Your task to perform on an android device: turn on translation in the chrome app Image 0: 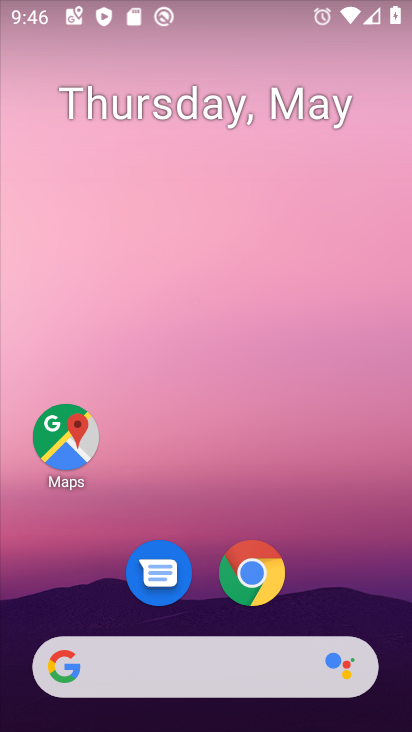
Step 0: click (248, 582)
Your task to perform on an android device: turn on translation in the chrome app Image 1: 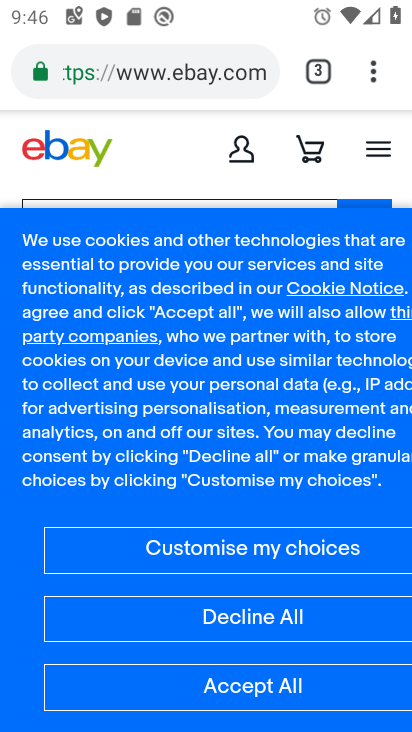
Step 1: click (367, 64)
Your task to perform on an android device: turn on translation in the chrome app Image 2: 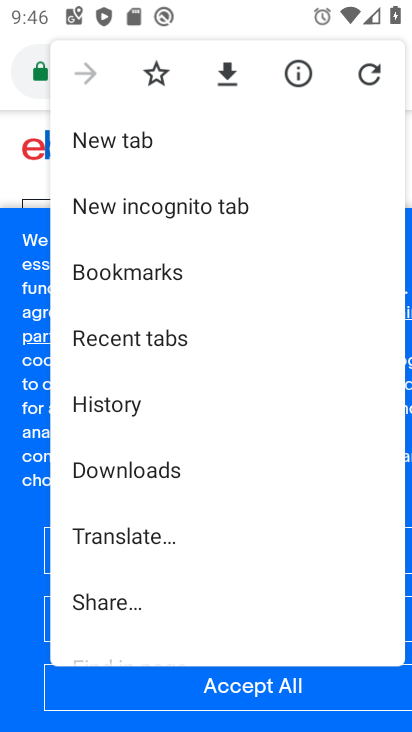
Step 2: drag from (209, 577) to (225, 286)
Your task to perform on an android device: turn on translation in the chrome app Image 3: 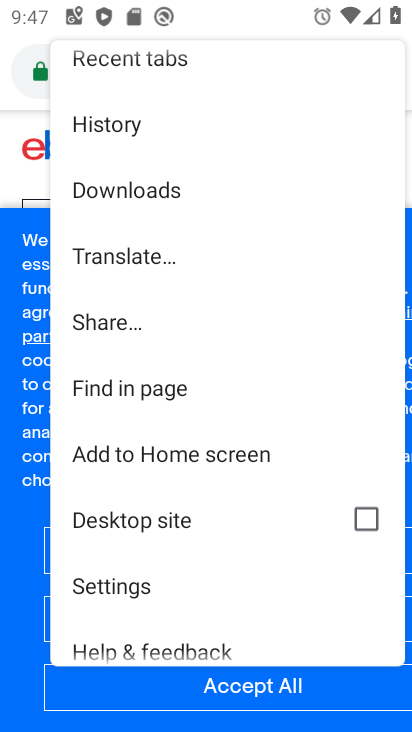
Step 3: drag from (195, 590) to (246, 401)
Your task to perform on an android device: turn on translation in the chrome app Image 4: 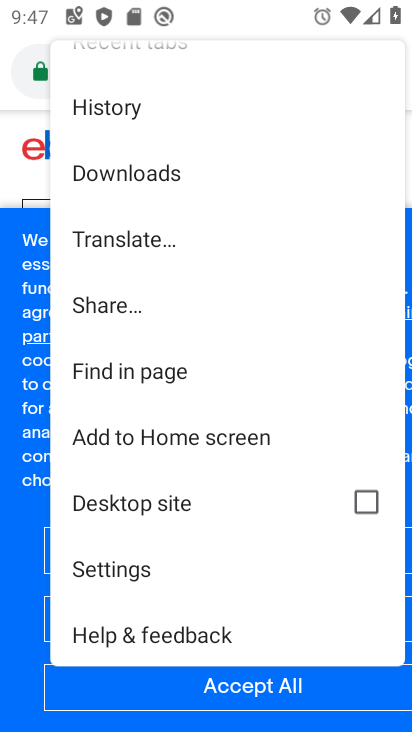
Step 4: click (136, 552)
Your task to perform on an android device: turn on translation in the chrome app Image 5: 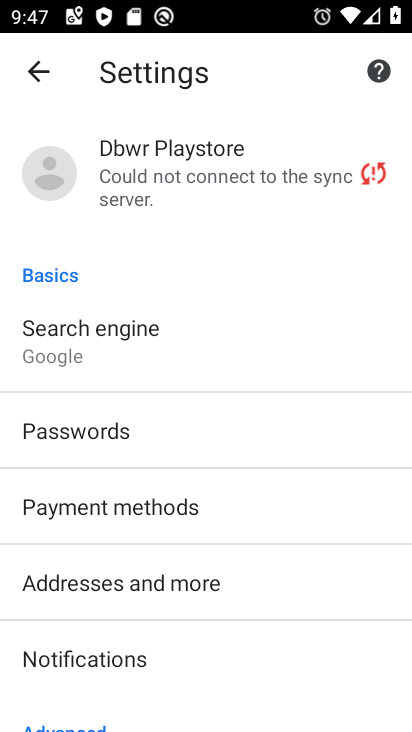
Step 5: drag from (176, 651) to (241, 511)
Your task to perform on an android device: turn on translation in the chrome app Image 6: 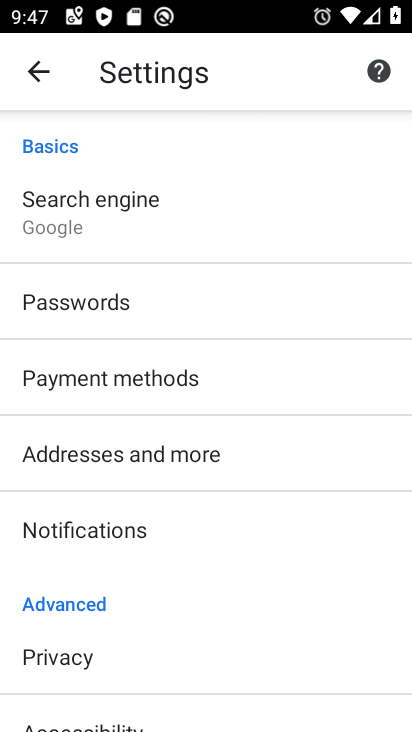
Step 6: drag from (165, 580) to (165, 457)
Your task to perform on an android device: turn on translation in the chrome app Image 7: 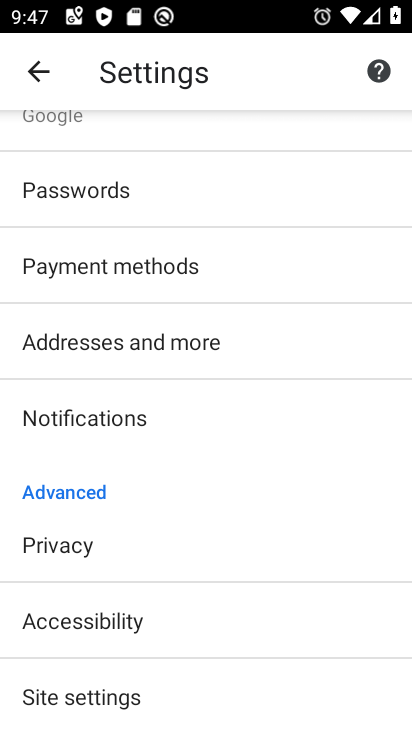
Step 7: drag from (170, 630) to (176, 511)
Your task to perform on an android device: turn on translation in the chrome app Image 8: 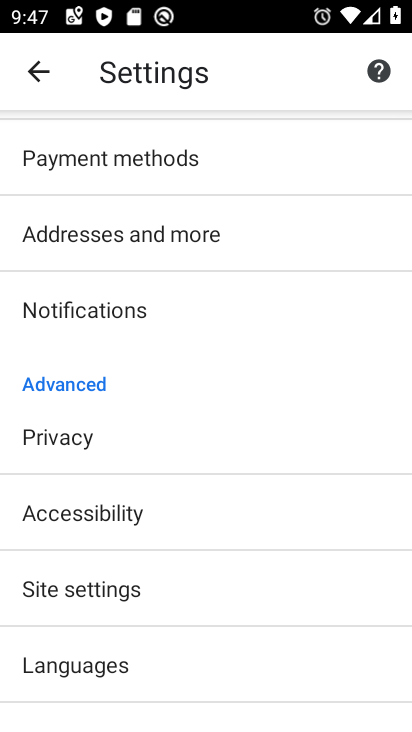
Step 8: click (126, 680)
Your task to perform on an android device: turn on translation in the chrome app Image 9: 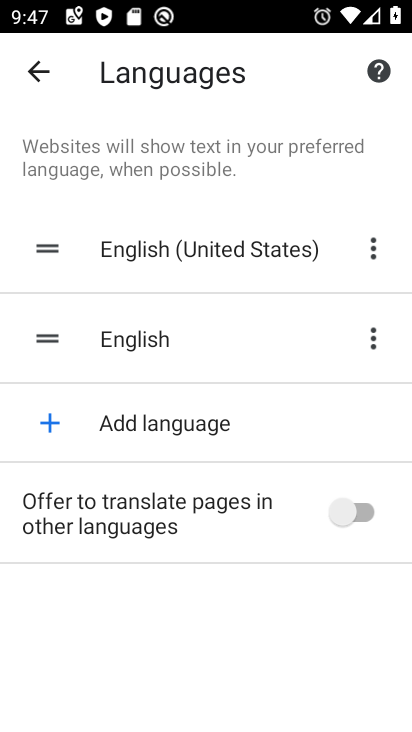
Step 9: click (364, 498)
Your task to perform on an android device: turn on translation in the chrome app Image 10: 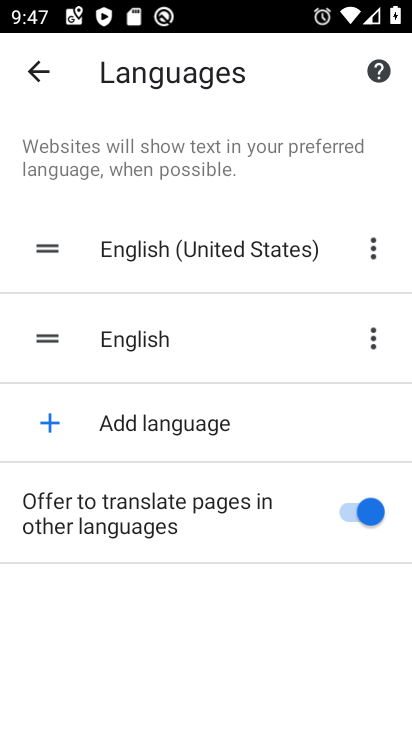
Step 10: task complete